Your task to perform on an android device: Open calendar and show me the fourth week of next month Image 0: 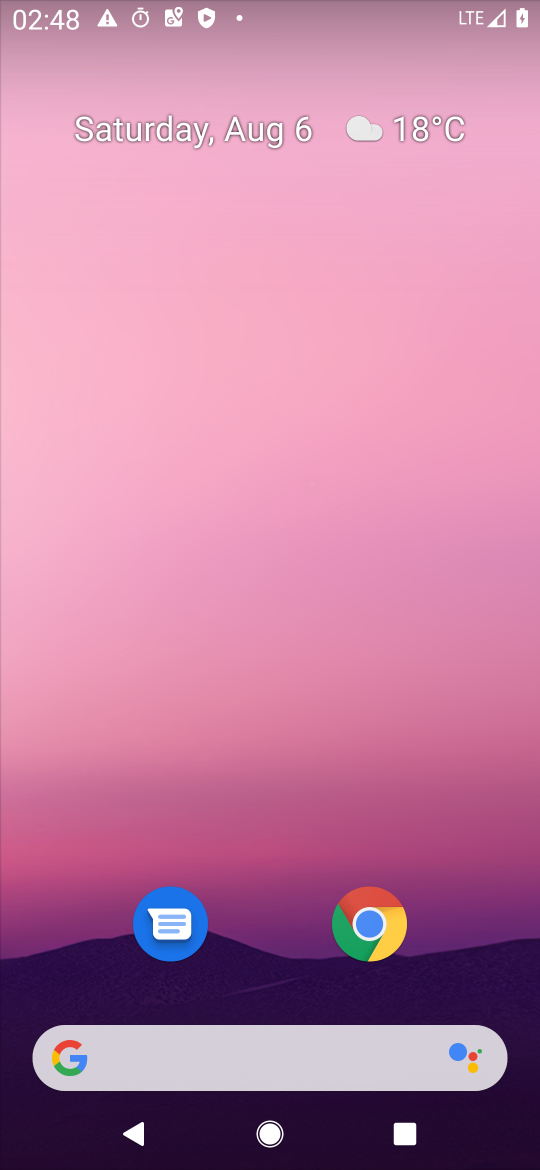
Step 0: drag from (208, 1051) to (360, 78)
Your task to perform on an android device: Open calendar and show me the fourth week of next month Image 1: 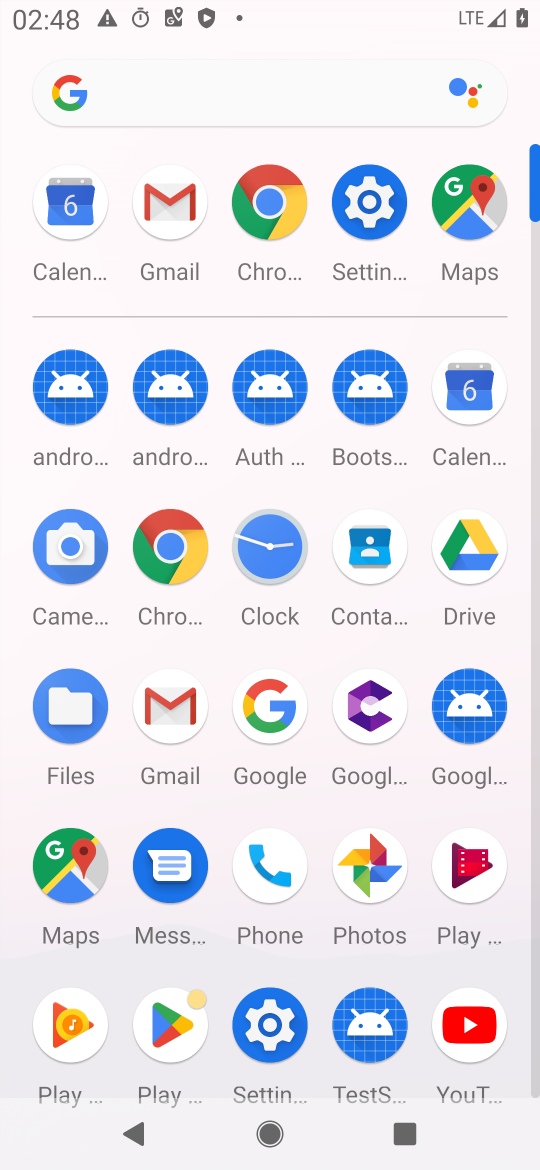
Step 1: click (486, 390)
Your task to perform on an android device: Open calendar and show me the fourth week of next month Image 2: 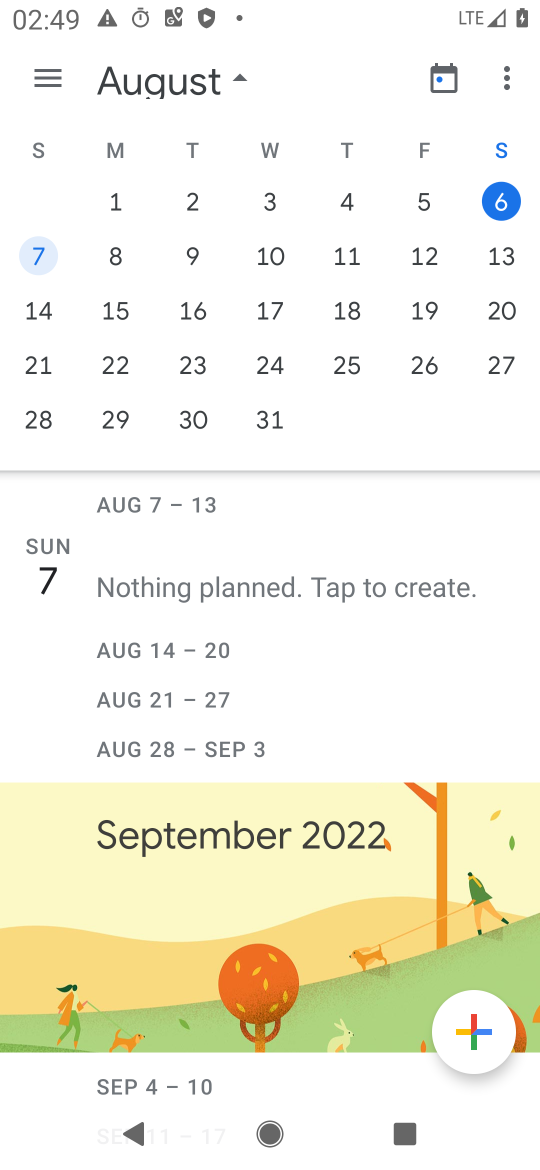
Step 2: drag from (484, 346) to (87, 335)
Your task to perform on an android device: Open calendar and show me the fourth week of next month Image 3: 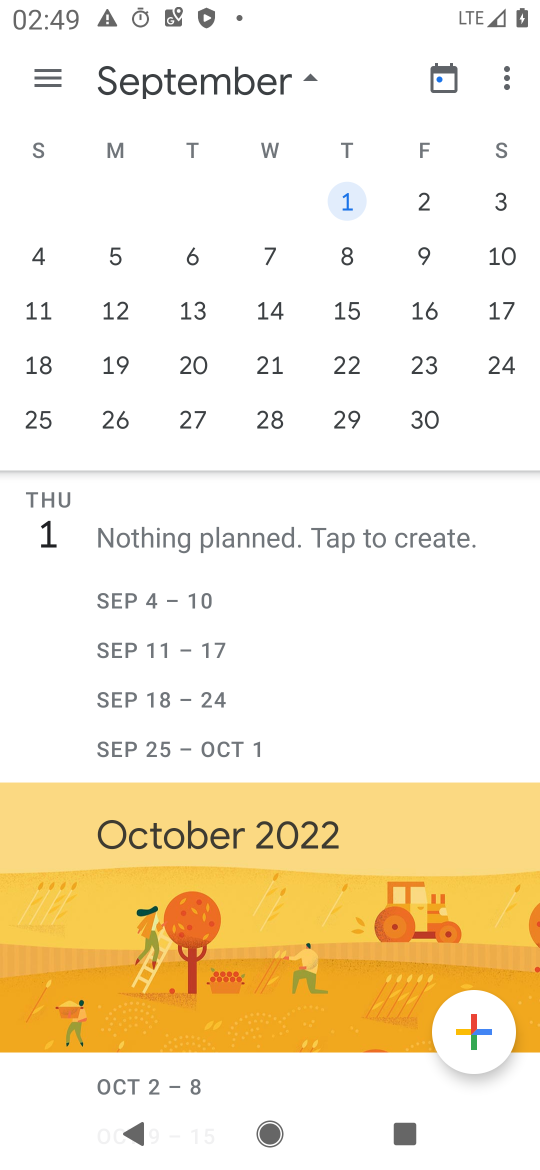
Step 3: click (274, 367)
Your task to perform on an android device: Open calendar and show me the fourth week of next month Image 4: 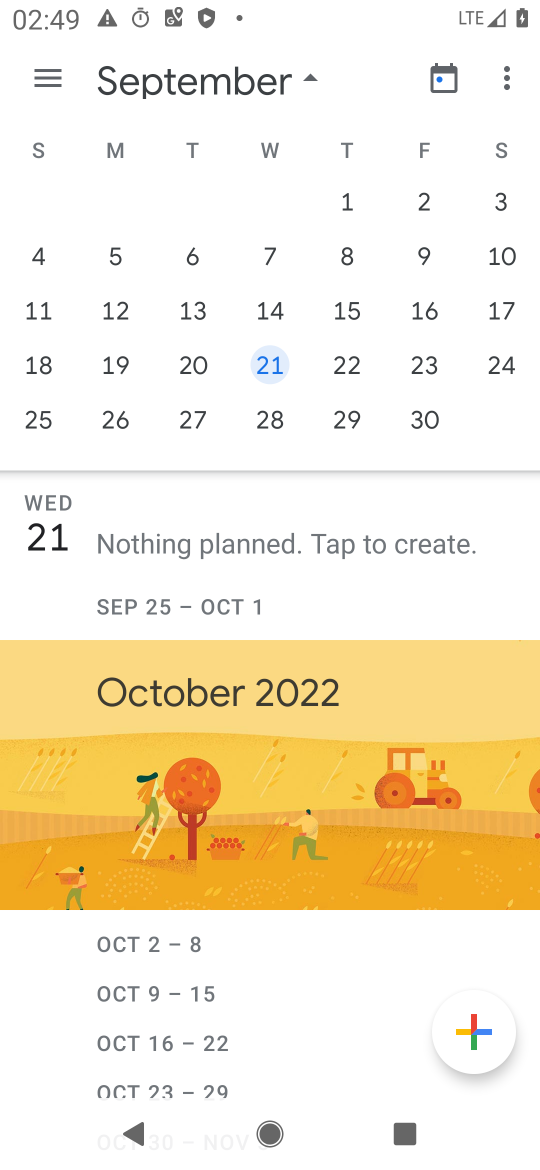
Step 4: task complete